Your task to perform on an android device: Open sound settings Image 0: 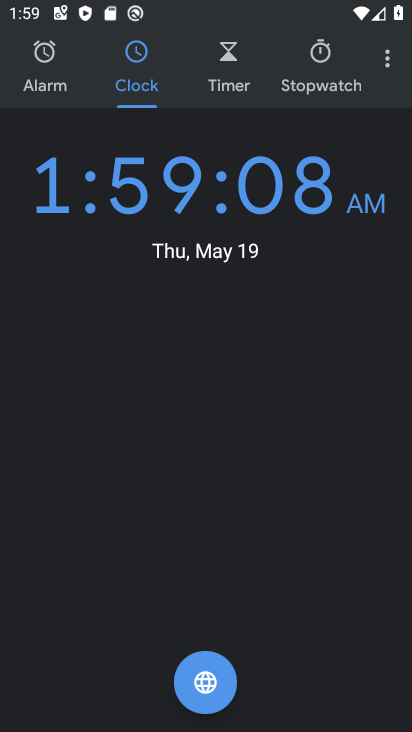
Step 0: press home button
Your task to perform on an android device: Open sound settings Image 1: 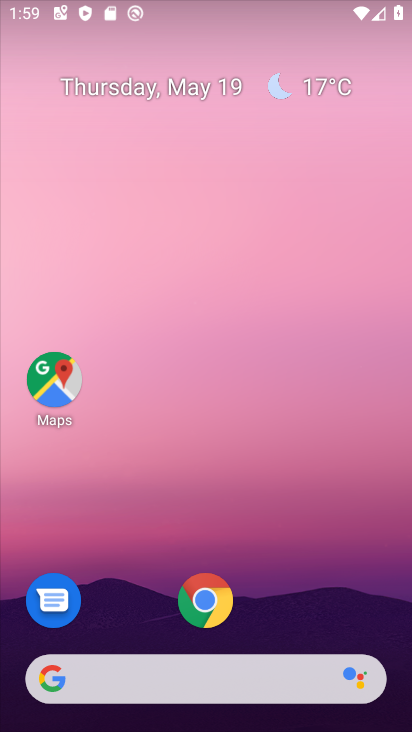
Step 1: drag from (287, 491) to (263, 150)
Your task to perform on an android device: Open sound settings Image 2: 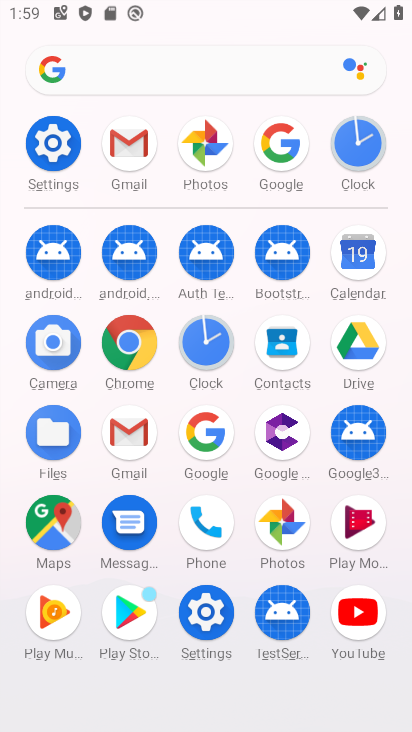
Step 2: click (207, 600)
Your task to perform on an android device: Open sound settings Image 3: 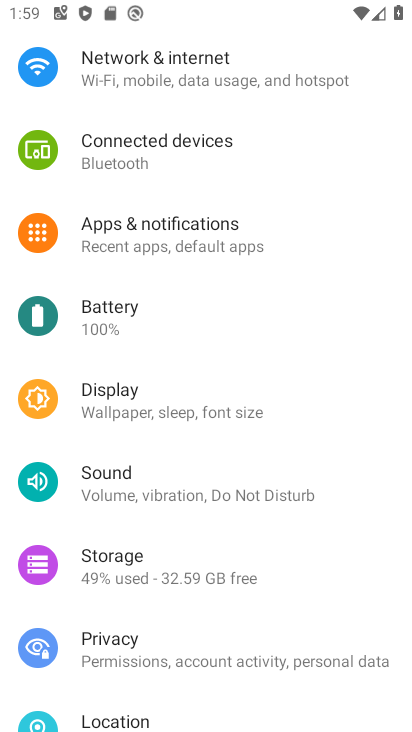
Step 3: click (158, 473)
Your task to perform on an android device: Open sound settings Image 4: 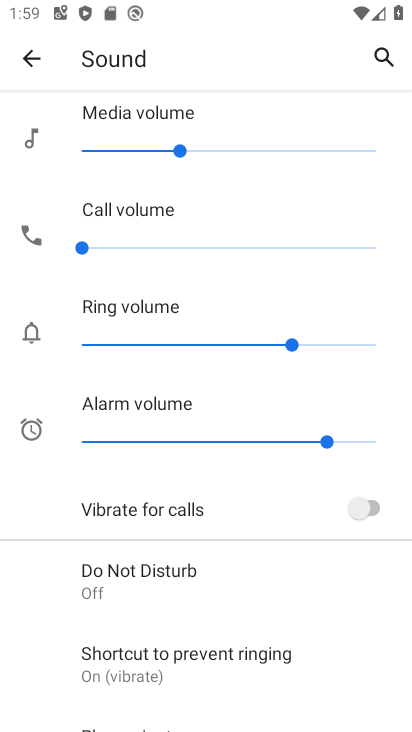
Step 4: task complete